Your task to perform on an android device: toggle improve location accuracy Image 0: 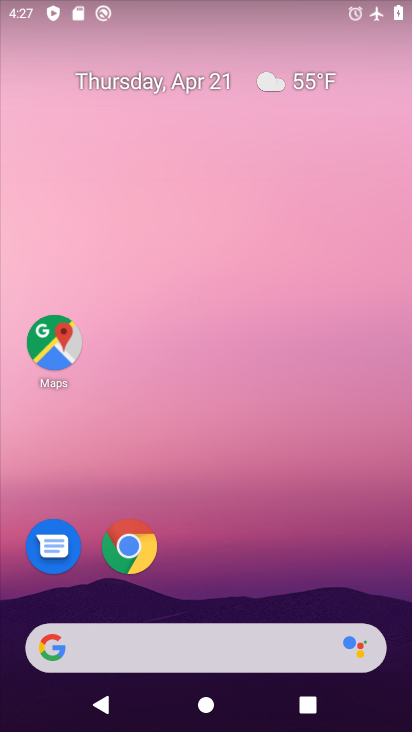
Step 0: drag from (262, 589) to (280, 155)
Your task to perform on an android device: toggle improve location accuracy Image 1: 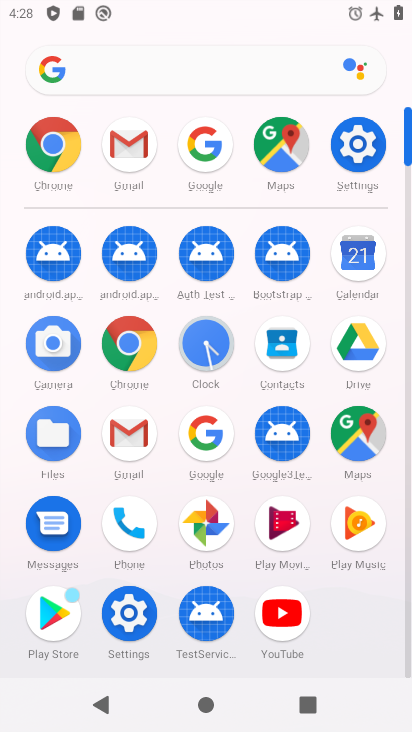
Step 1: click (126, 610)
Your task to perform on an android device: toggle improve location accuracy Image 2: 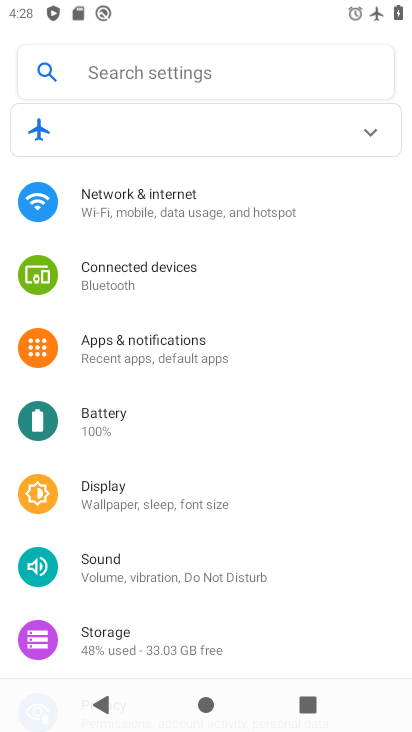
Step 2: drag from (153, 588) to (260, 137)
Your task to perform on an android device: toggle improve location accuracy Image 3: 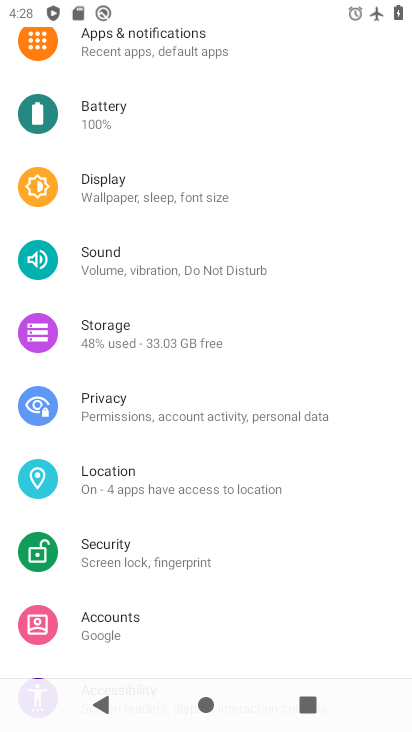
Step 3: drag from (143, 617) to (165, 696)
Your task to perform on an android device: toggle improve location accuracy Image 4: 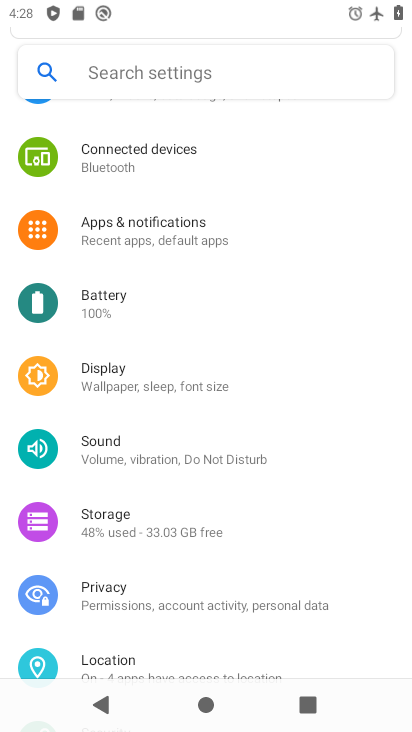
Step 4: click (98, 659)
Your task to perform on an android device: toggle improve location accuracy Image 5: 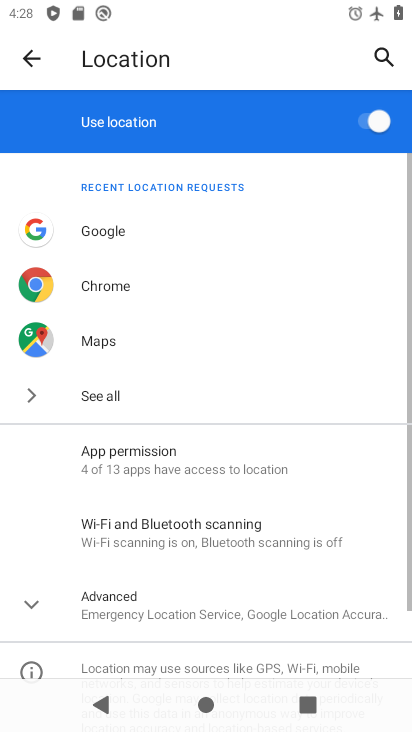
Step 5: drag from (115, 563) to (174, 160)
Your task to perform on an android device: toggle improve location accuracy Image 6: 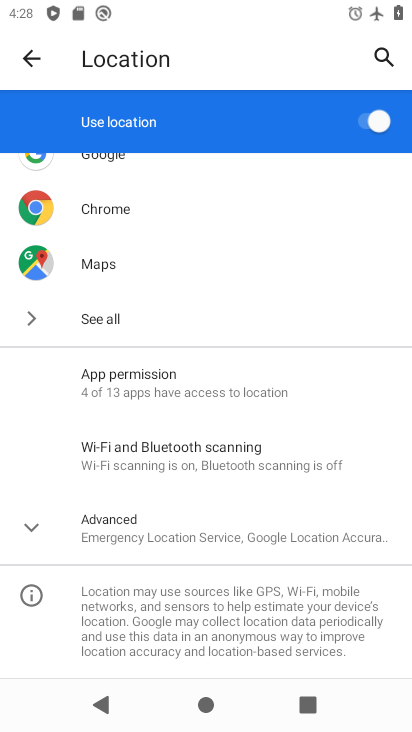
Step 6: click (92, 516)
Your task to perform on an android device: toggle improve location accuracy Image 7: 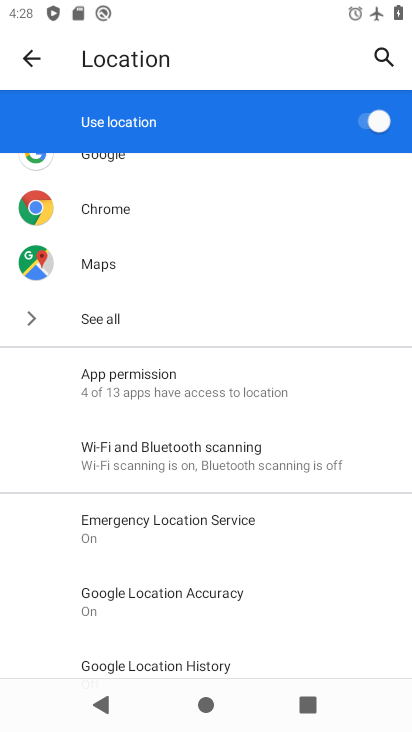
Step 7: click (196, 607)
Your task to perform on an android device: toggle improve location accuracy Image 8: 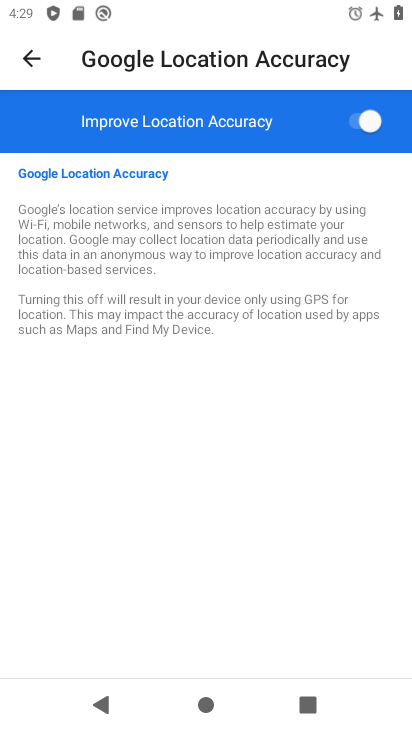
Step 8: click (369, 117)
Your task to perform on an android device: toggle improve location accuracy Image 9: 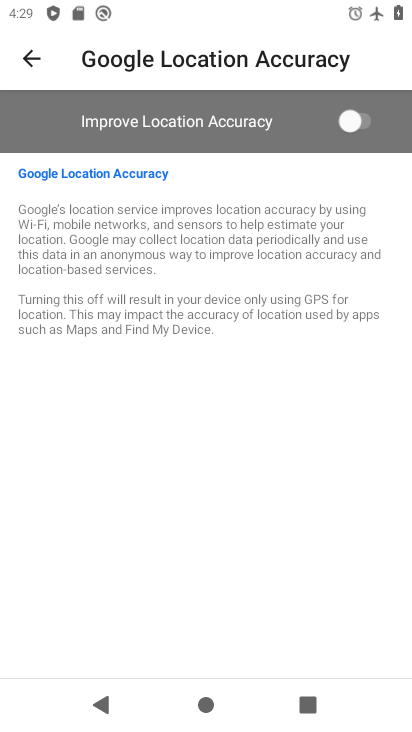
Step 9: task complete